Your task to perform on an android device: turn off data saver in the chrome app Image 0: 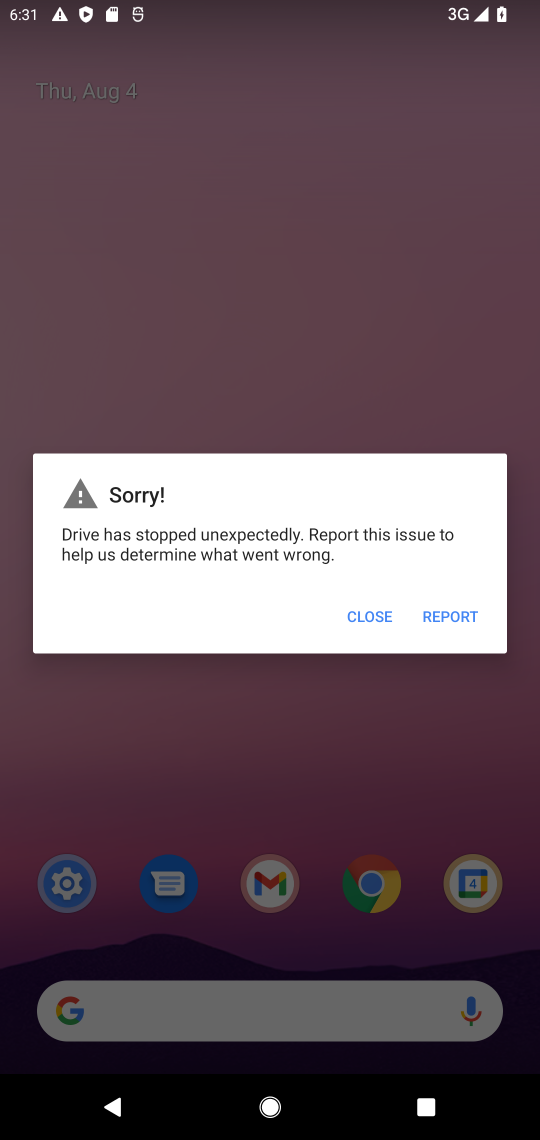
Step 0: click (379, 620)
Your task to perform on an android device: turn off data saver in the chrome app Image 1: 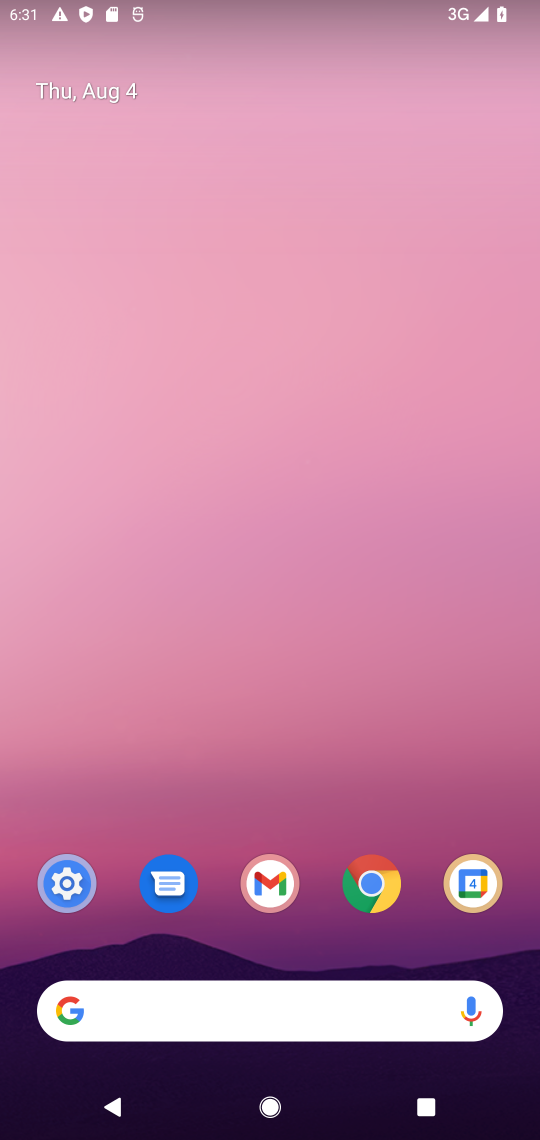
Step 1: click (355, 884)
Your task to perform on an android device: turn off data saver in the chrome app Image 2: 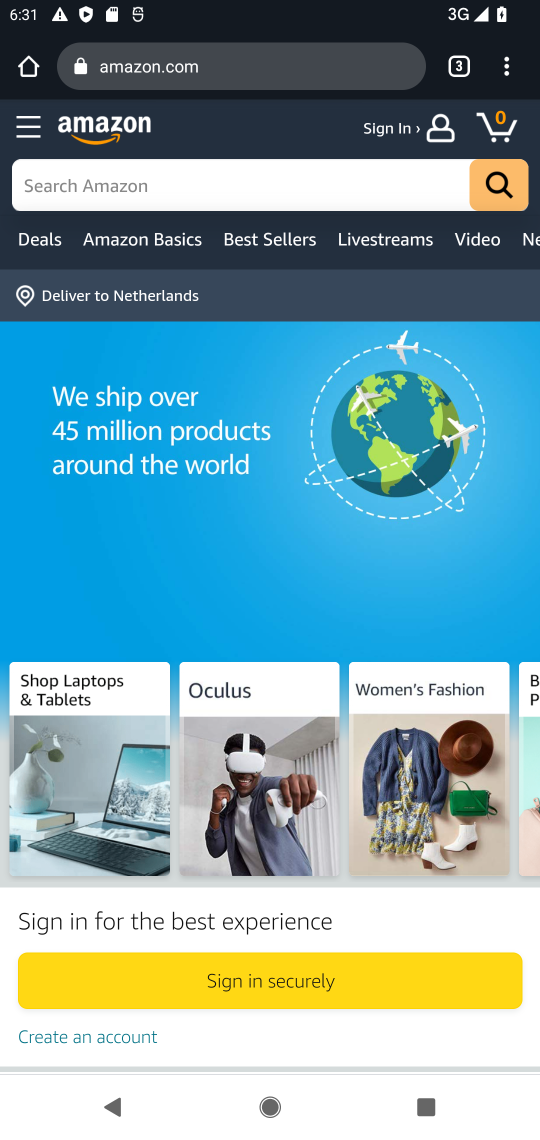
Step 2: click (510, 75)
Your task to perform on an android device: turn off data saver in the chrome app Image 3: 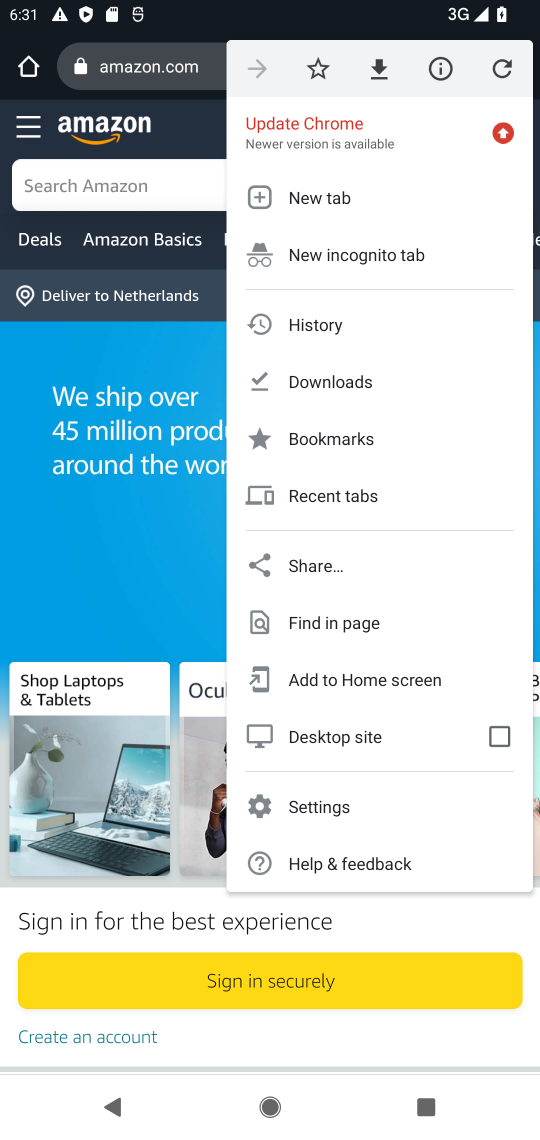
Step 3: click (322, 799)
Your task to perform on an android device: turn off data saver in the chrome app Image 4: 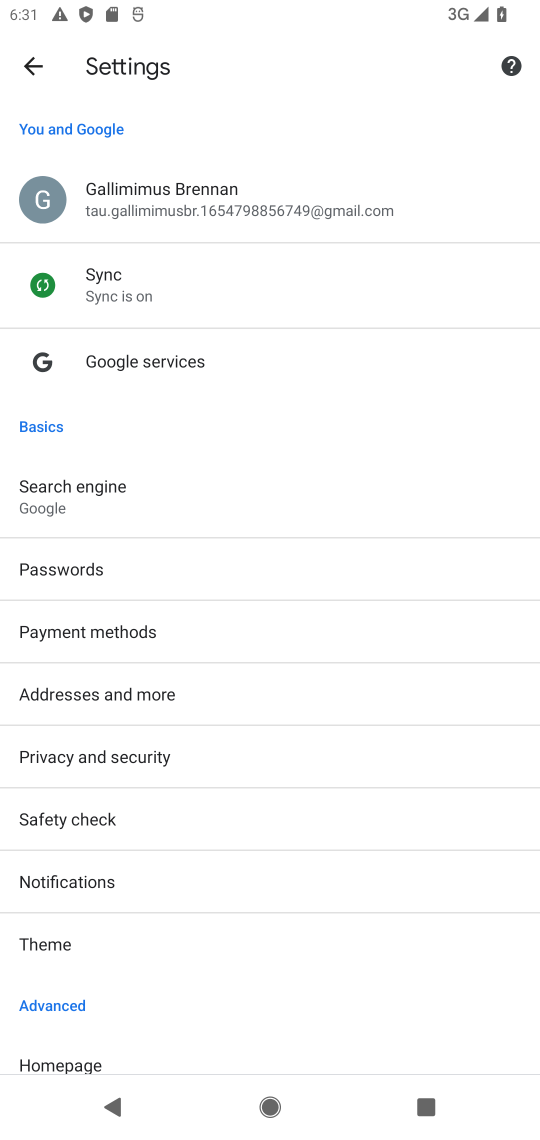
Step 4: drag from (232, 994) to (250, 377)
Your task to perform on an android device: turn off data saver in the chrome app Image 5: 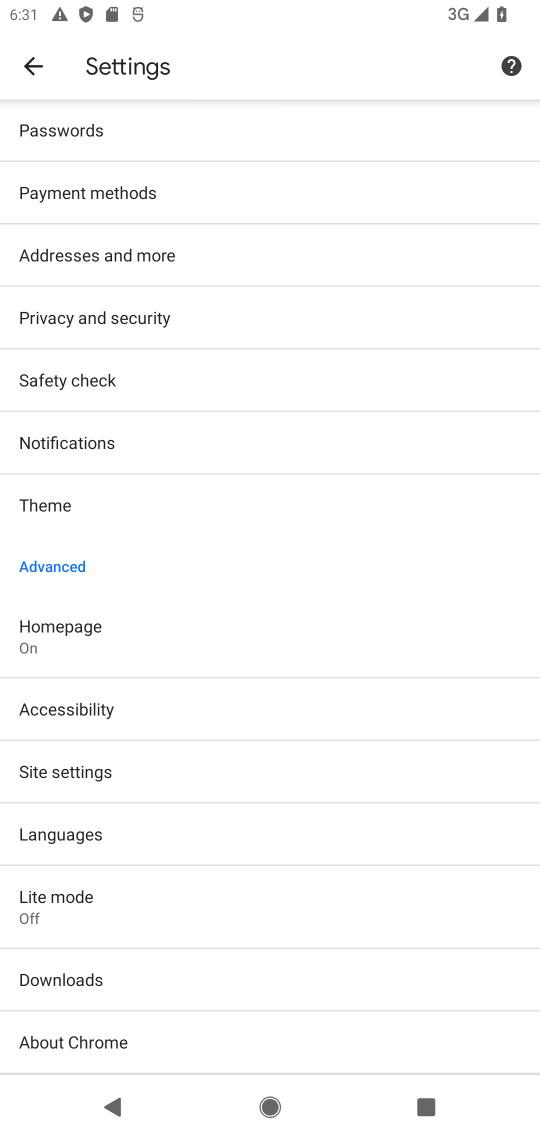
Step 5: click (200, 918)
Your task to perform on an android device: turn off data saver in the chrome app Image 6: 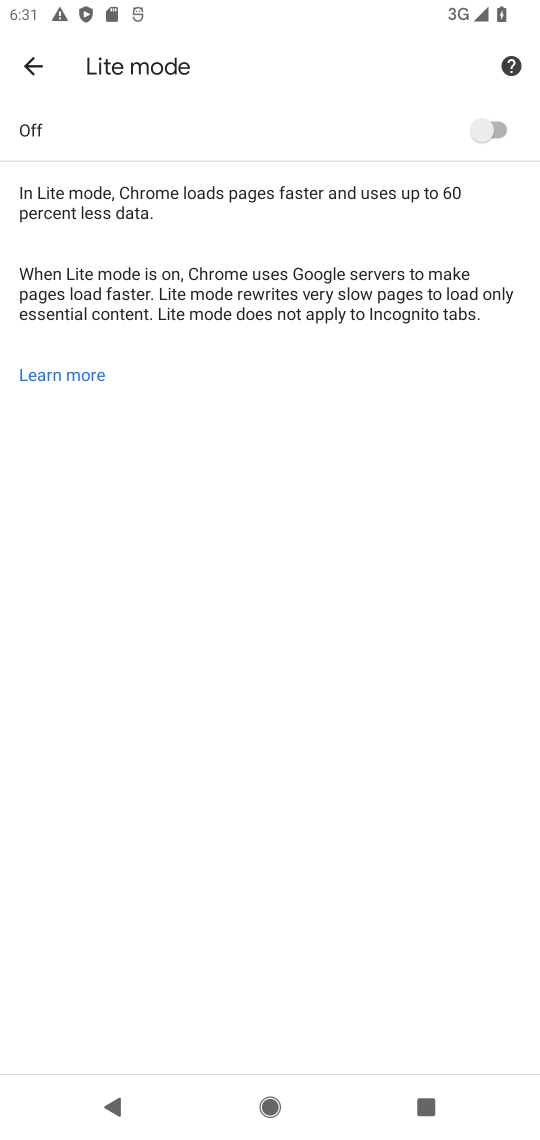
Step 6: task complete